Your task to perform on an android device: set default search engine in the chrome app Image 0: 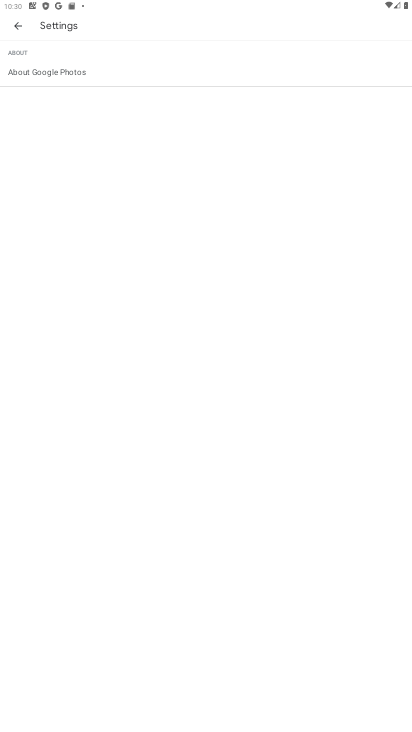
Step 0: press home button
Your task to perform on an android device: set default search engine in the chrome app Image 1: 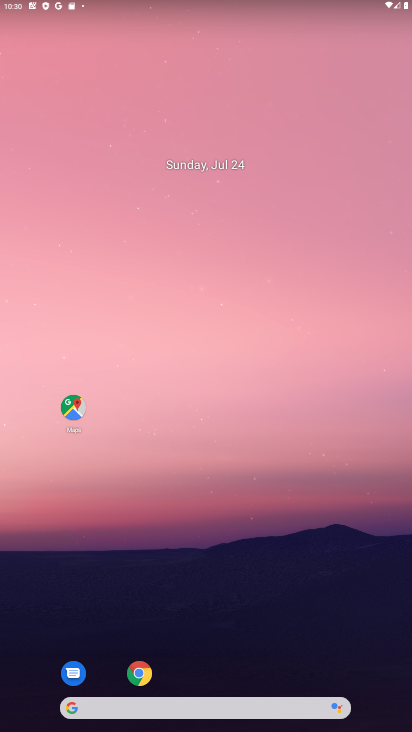
Step 1: drag from (35, 687) to (221, 274)
Your task to perform on an android device: set default search engine in the chrome app Image 2: 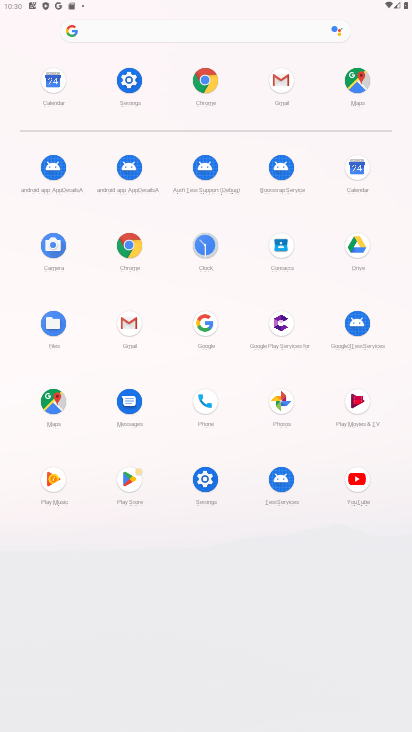
Step 2: click (198, 73)
Your task to perform on an android device: set default search engine in the chrome app Image 3: 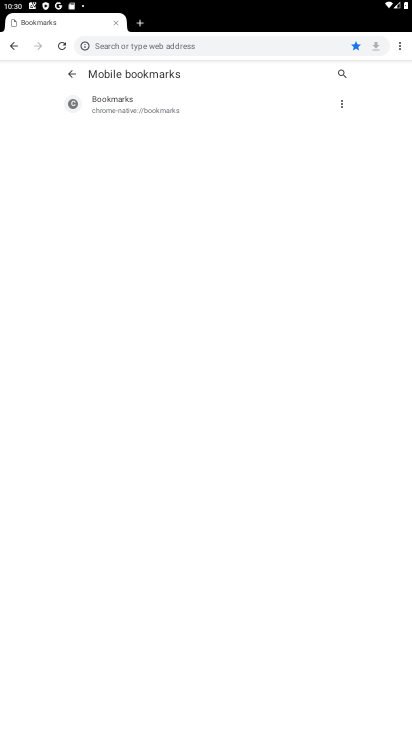
Step 3: click (395, 47)
Your task to perform on an android device: set default search engine in the chrome app Image 4: 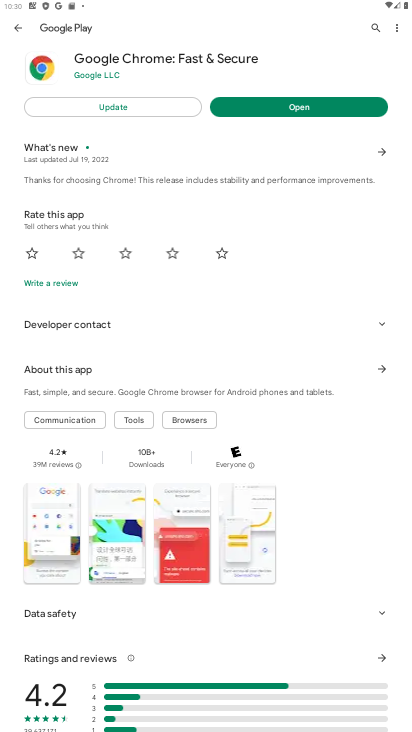
Step 4: click (394, 24)
Your task to perform on an android device: set default search engine in the chrome app Image 5: 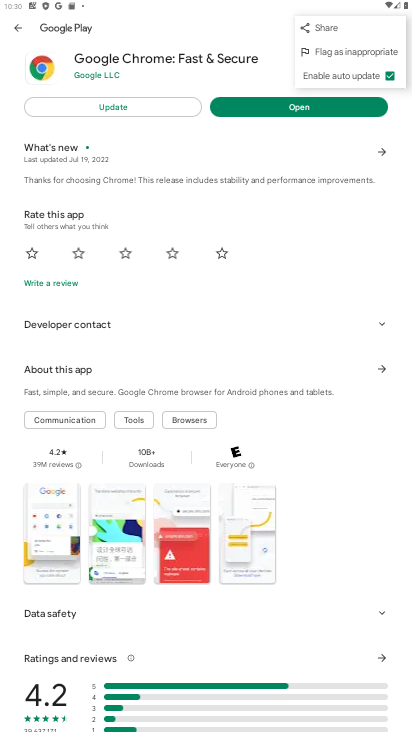
Step 5: click (355, 131)
Your task to perform on an android device: set default search engine in the chrome app Image 6: 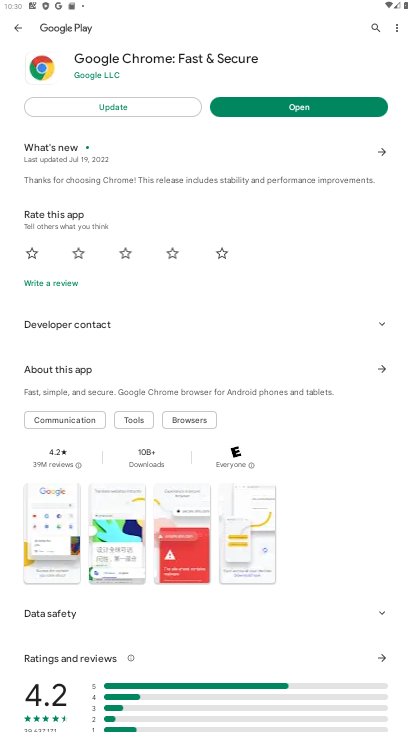
Step 6: click (318, 104)
Your task to perform on an android device: set default search engine in the chrome app Image 7: 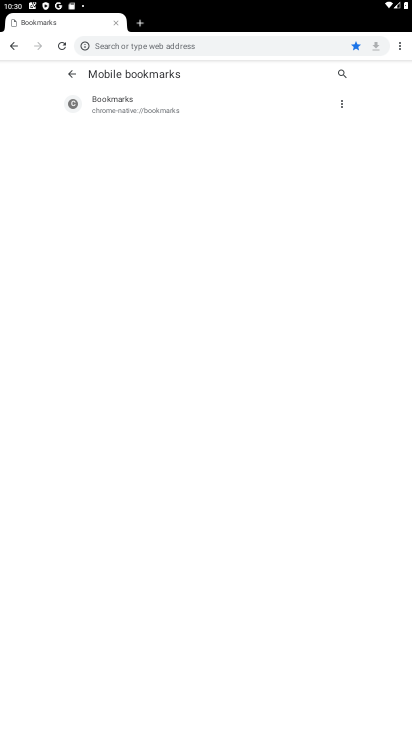
Step 7: click (408, 42)
Your task to perform on an android device: set default search engine in the chrome app Image 8: 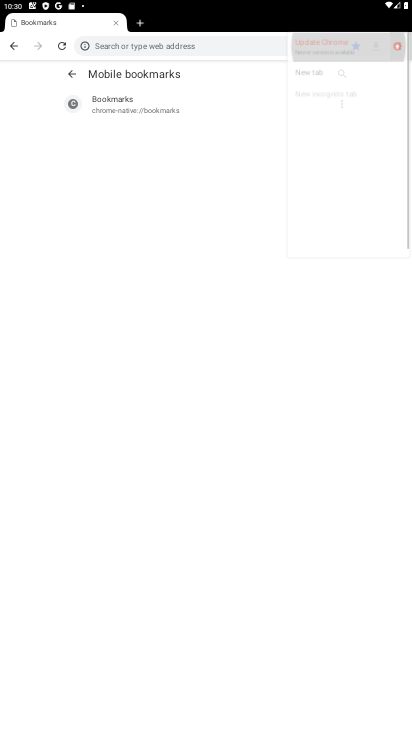
Step 8: click (403, 43)
Your task to perform on an android device: set default search engine in the chrome app Image 9: 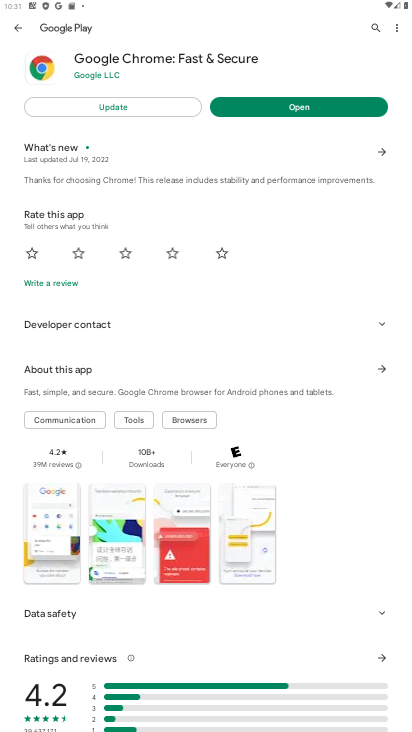
Step 9: task complete